Your task to perform on an android device: Go to Android settings Image 0: 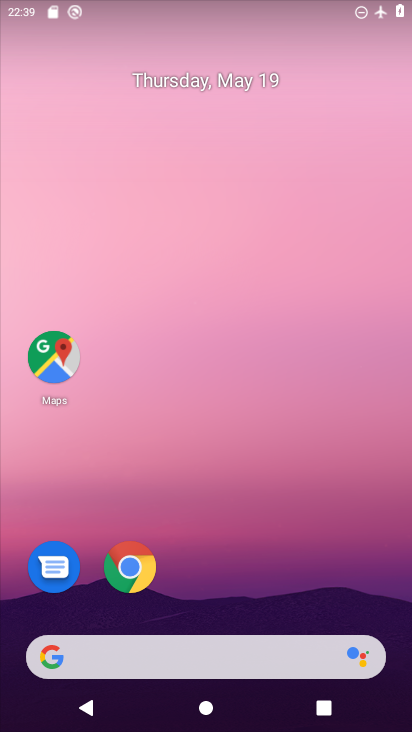
Step 0: press home button
Your task to perform on an android device: Go to Android settings Image 1: 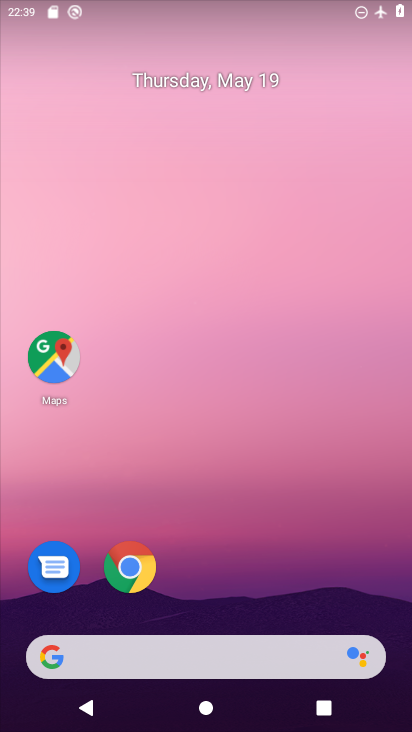
Step 1: drag from (204, 615) to (195, 57)
Your task to perform on an android device: Go to Android settings Image 2: 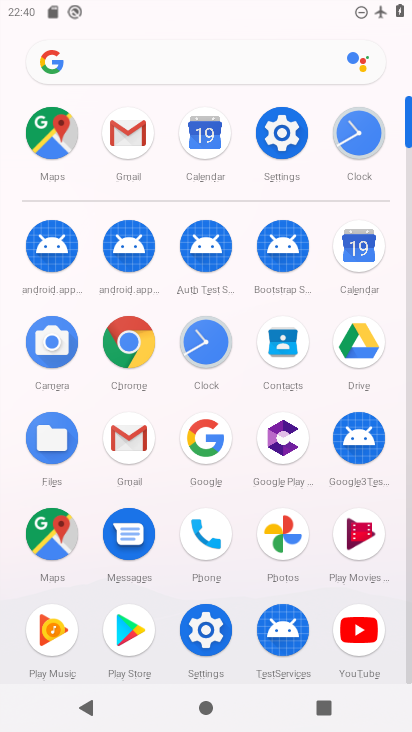
Step 2: click (207, 615)
Your task to perform on an android device: Go to Android settings Image 3: 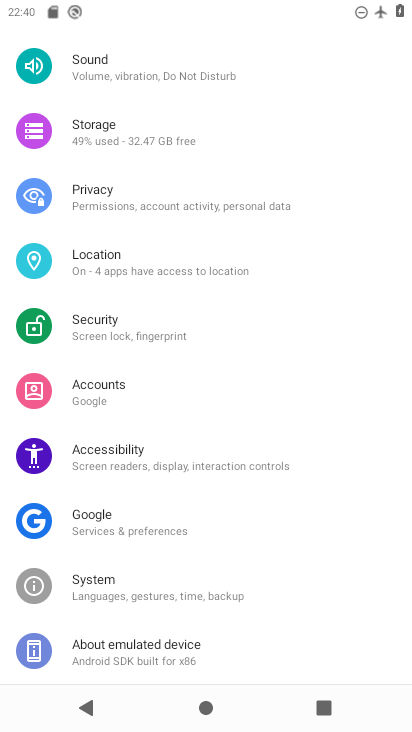
Step 3: click (202, 657)
Your task to perform on an android device: Go to Android settings Image 4: 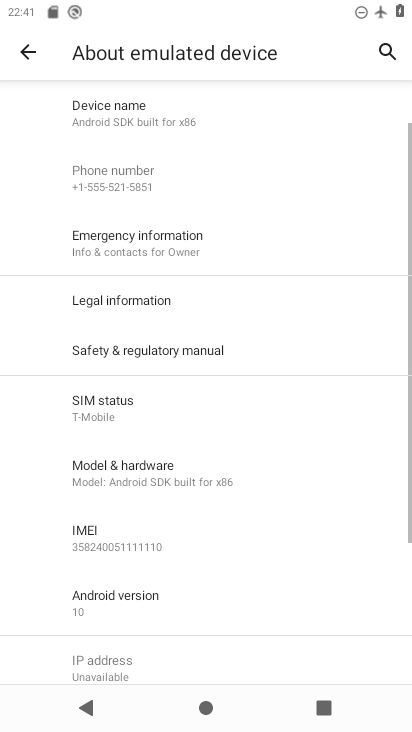
Step 4: drag from (155, 552) to (161, 324)
Your task to perform on an android device: Go to Android settings Image 5: 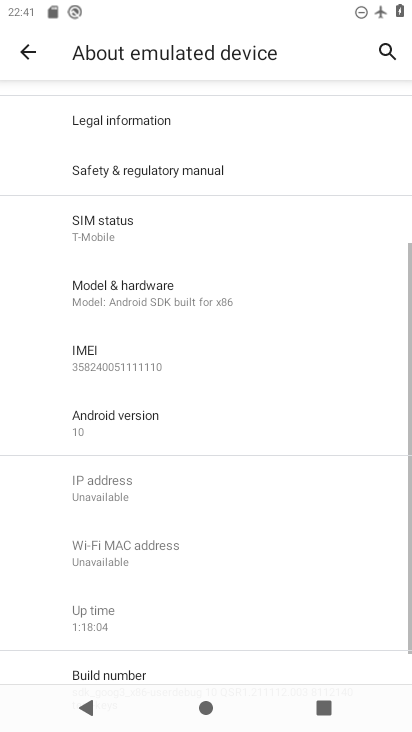
Step 5: click (145, 416)
Your task to perform on an android device: Go to Android settings Image 6: 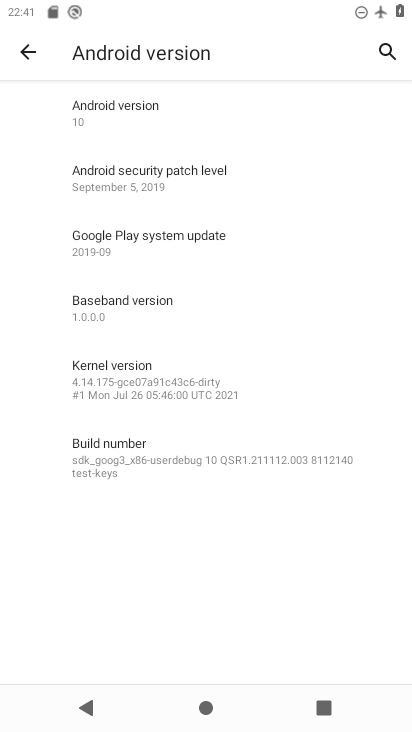
Step 6: task complete